Your task to perform on an android device: turn on airplane mode Image 0: 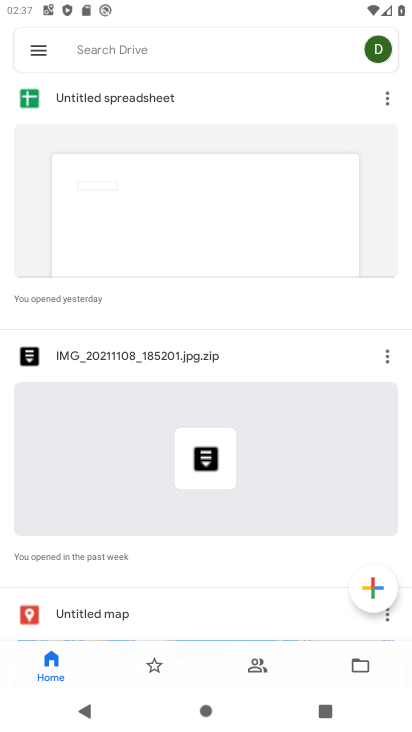
Step 0: press home button
Your task to perform on an android device: turn on airplane mode Image 1: 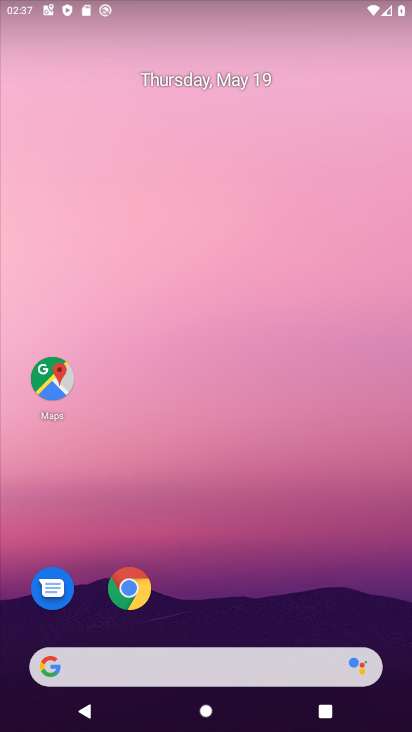
Step 1: drag from (259, 582) to (244, 37)
Your task to perform on an android device: turn on airplane mode Image 2: 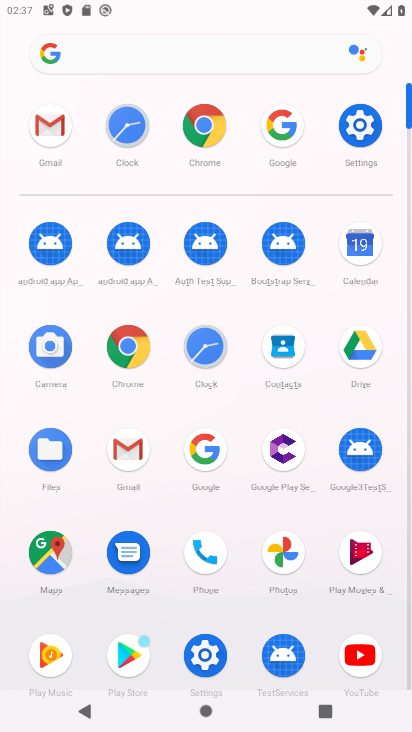
Step 2: click (370, 123)
Your task to perform on an android device: turn on airplane mode Image 3: 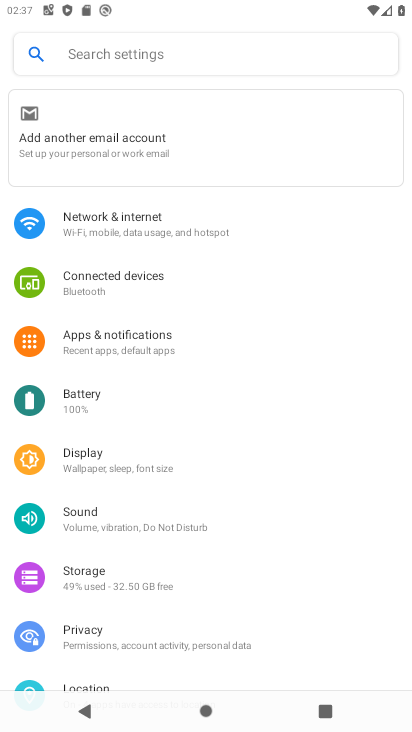
Step 3: click (127, 210)
Your task to perform on an android device: turn on airplane mode Image 4: 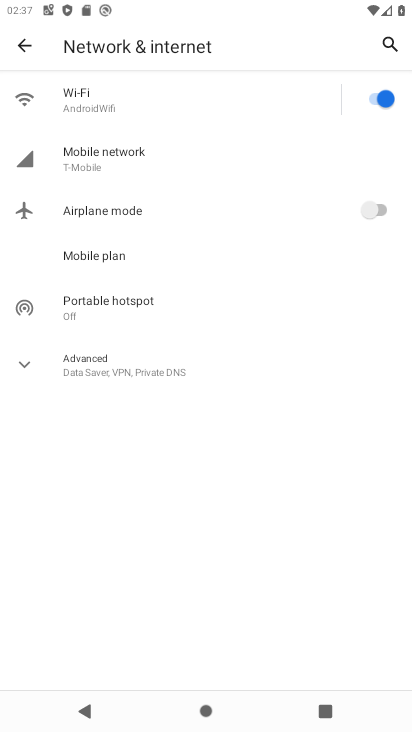
Step 4: click (373, 213)
Your task to perform on an android device: turn on airplane mode Image 5: 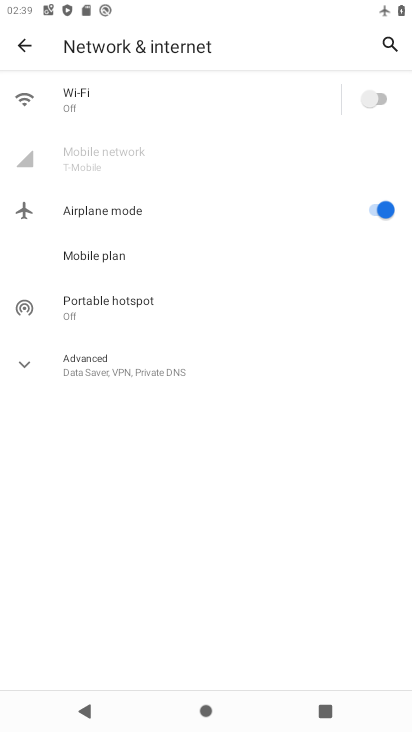
Step 5: task complete